Your task to perform on an android device: What's the weather today? Image 0: 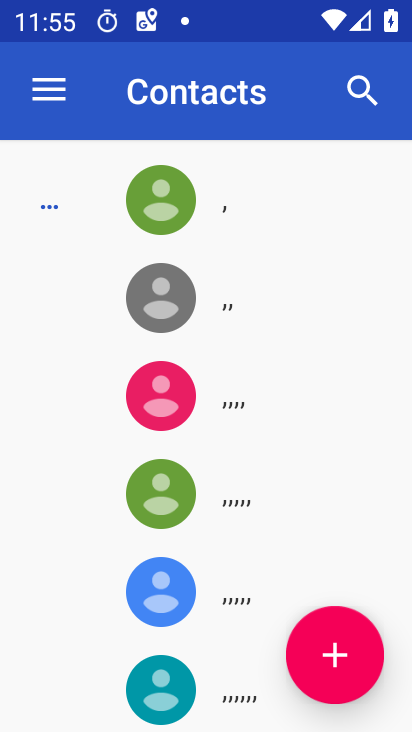
Step 0: press home button
Your task to perform on an android device: What's the weather today? Image 1: 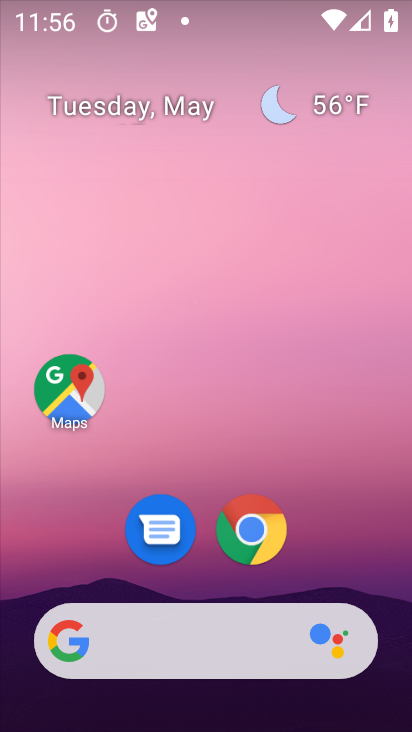
Step 1: click (316, 115)
Your task to perform on an android device: What's the weather today? Image 2: 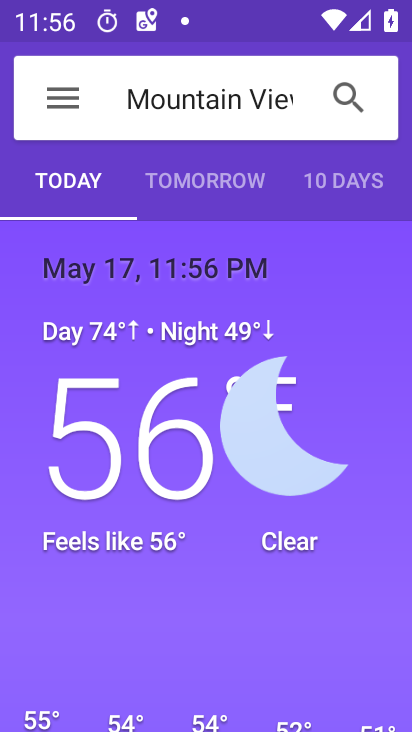
Step 2: task complete